Your task to perform on an android device: What's the latest video from Game Informer? Image 0: 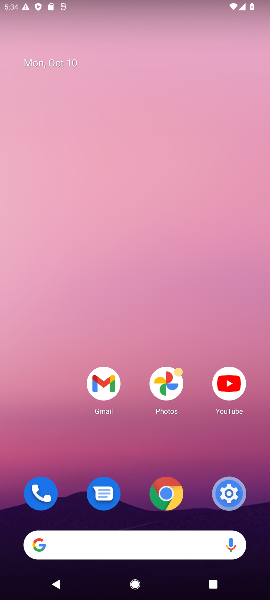
Step 0: click (103, 556)
Your task to perform on an android device: What's the latest video from Game Informer? Image 1: 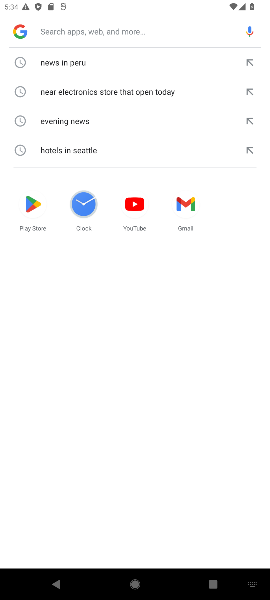
Step 1: type "What's the latest video from Game Informer?"
Your task to perform on an android device: What's the latest video from Game Informer? Image 2: 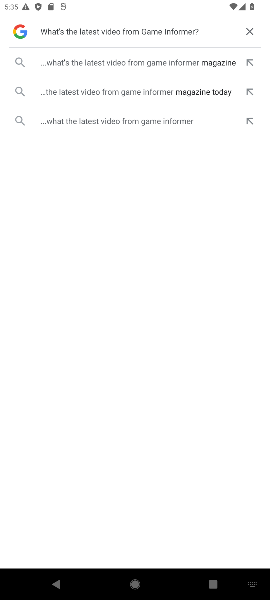
Step 2: click (150, 61)
Your task to perform on an android device: What's the latest video from Game Informer? Image 3: 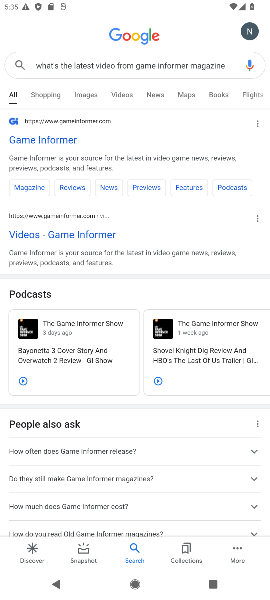
Step 3: task complete